Your task to perform on an android device: Open sound settings Image 0: 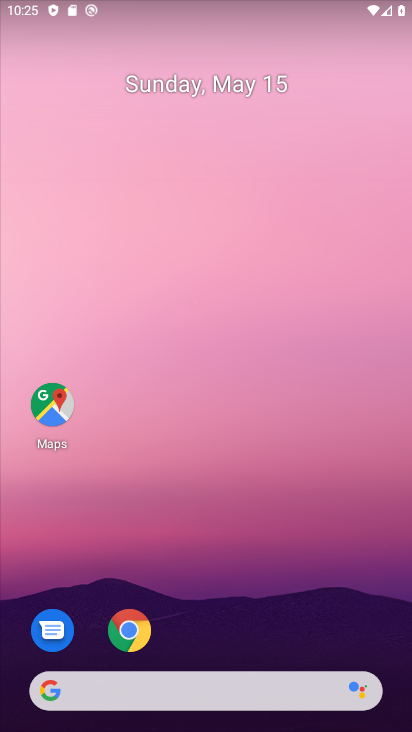
Step 0: drag from (235, 492) to (303, 143)
Your task to perform on an android device: Open sound settings Image 1: 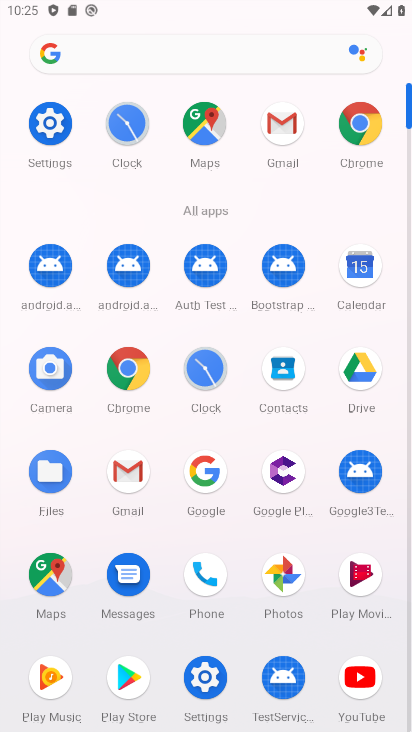
Step 1: click (188, 680)
Your task to perform on an android device: Open sound settings Image 2: 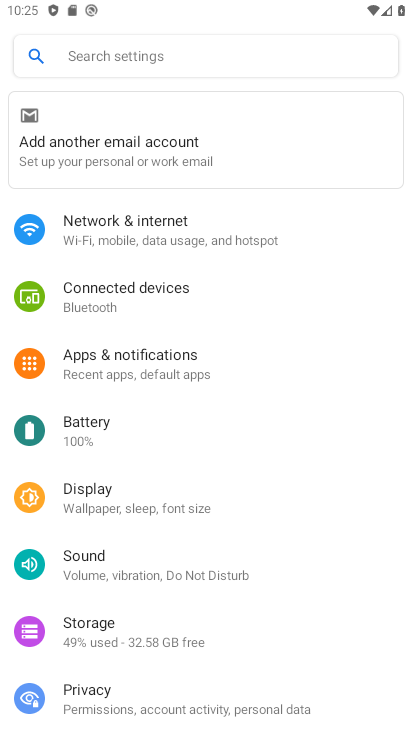
Step 2: click (113, 578)
Your task to perform on an android device: Open sound settings Image 3: 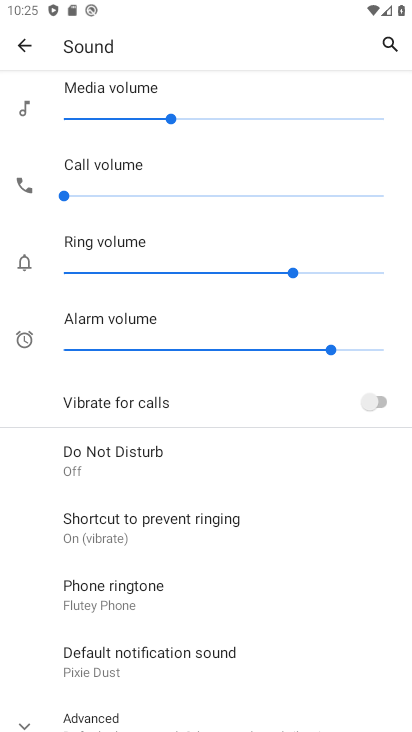
Step 3: task complete